Your task to perform on an android device: See recent photos Image 0: 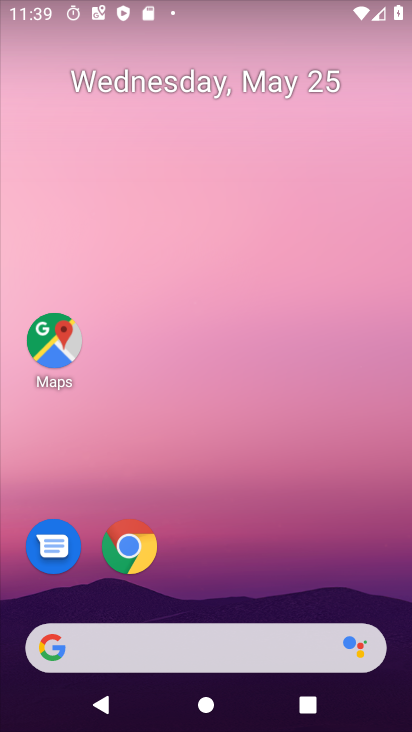
Step 0: drag from (239, 561) to (239, 75)
Your task to perform on an android device: See recent photos Image 1: 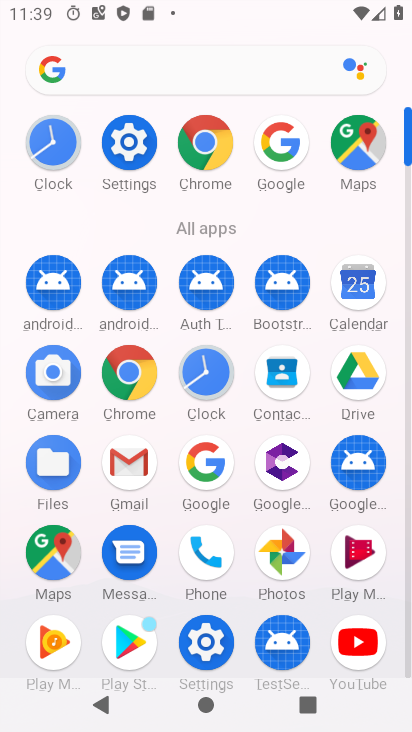
Step 1: click (289, 551)
Your task to perform on an android device: See recent photos Image 2: 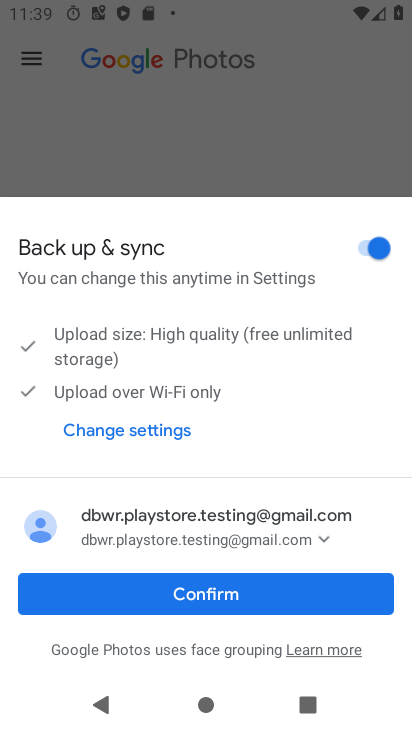
Step 2: click (241, 582)
Your task to perform on an android device: See recent photos Image 3: 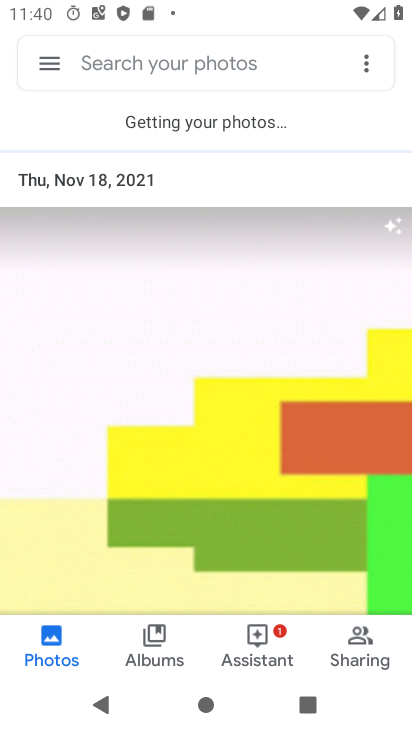
Step 3: task complete